Your task to perform on an android device: What's on the menu at Denny's? Image 0: 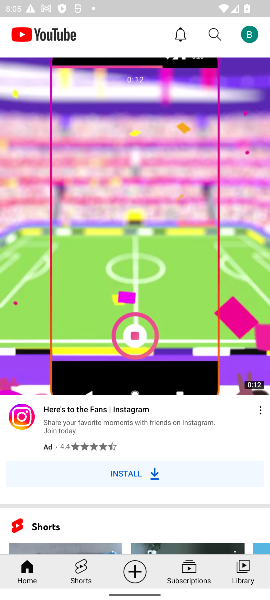
Step 0: press home button
Your task to perform on an android device: What's on the menu at Denny's? Image 1: 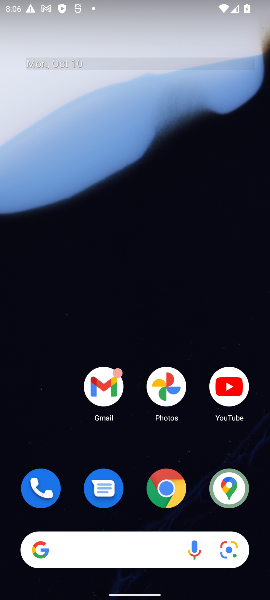
Step 1: drag from (140, 456) to (141, 82)
Your task to perform on an android device: What's on the menu at Denny's? Image 2: 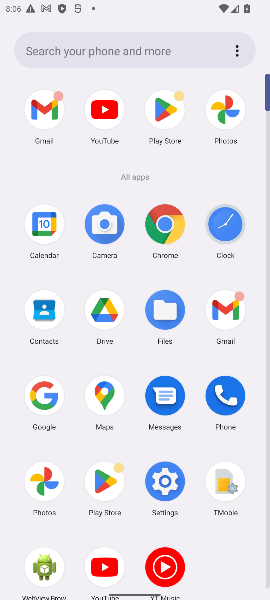
Step 2: click (162, 229)
Your task to perform on an android device: What's on the menu at Denny's? Image 3: 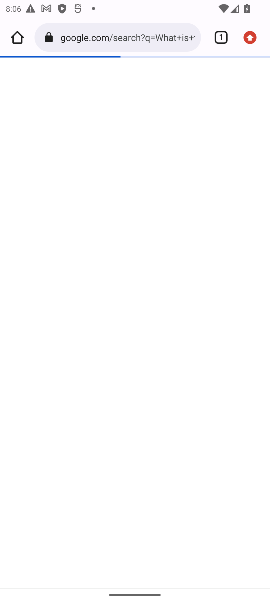
Step 3: click (139, 40)
Your task to perform on an android device: What's on the menu at Denny's? Image 4: 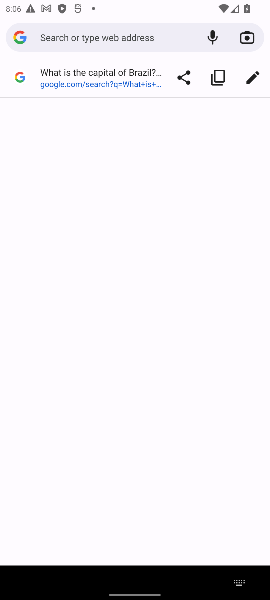
Step 4: type ""
Your task to perform on an android device: What's on the menu at Denny's? Image 5: 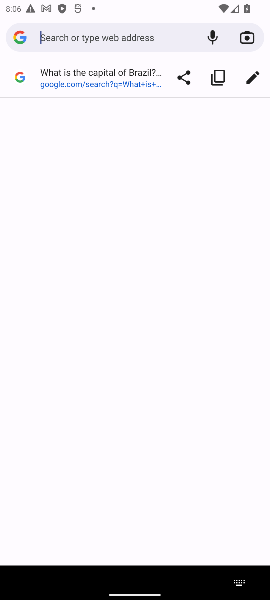
Step 5: type "What's on the menu at Denny's ?"
Your task to perform on an android device: What's on the menu at Denny's? Image 6: 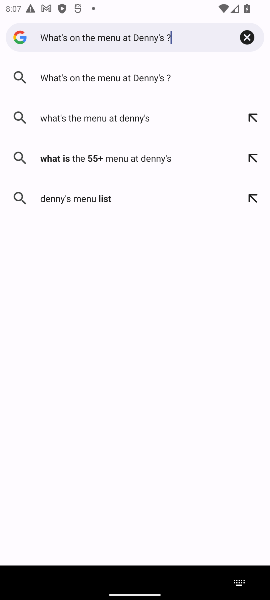
Step 6: press enter
Your task to perform on an android device: What's on the menu at Denny's? Image 7: 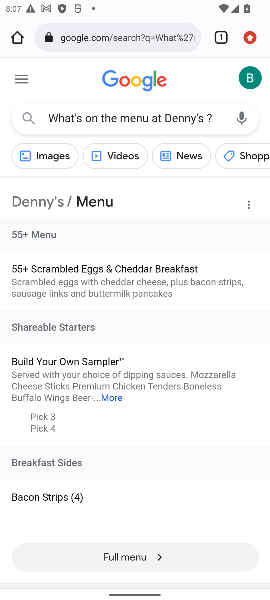
Step 7: drag from (110, 463) to (146, 245)
Your task to perform on an android device: What's on the menu at Denny's? Image 8: 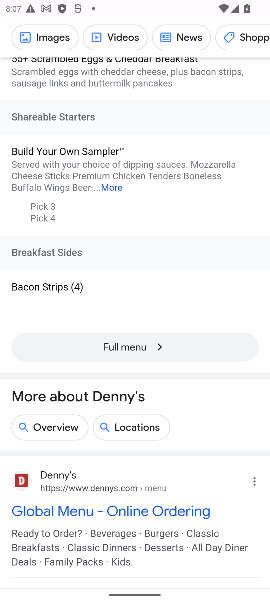
Step 8: click (104, 350)
Your task to perform on an android device: What's on the menu at Denny's? Image 9: 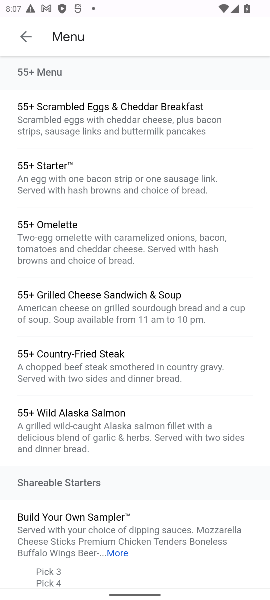
Step 9: task complete